Your task to perform on an android device: toggle notifications settings in the gmail app Image 0: 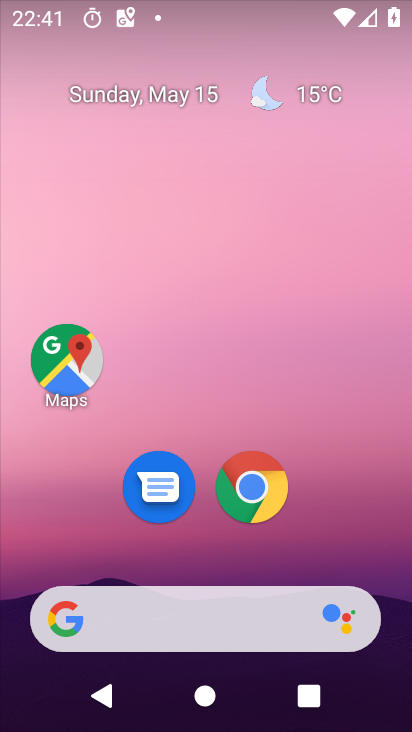
Step 0: drag from (284, 549) to (390, 243)
Your task to perform on an android device: toggle notifications settings in the gmail app Image 1: 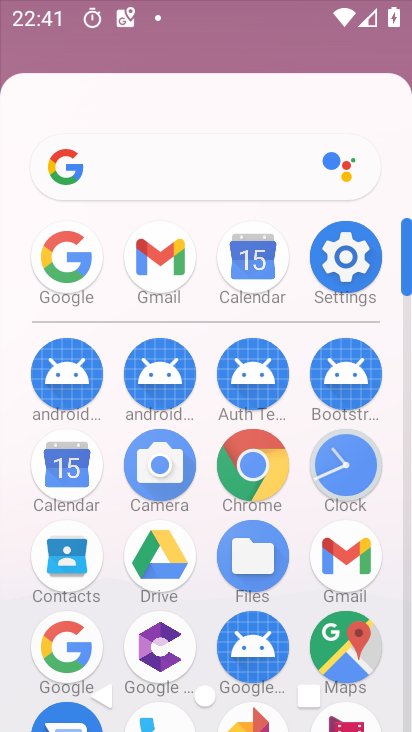
Step 1: drag from (115, 666) to (275, 337)
Your task to perform on an android device: toggle notifications settings in the gmail app Image 2: 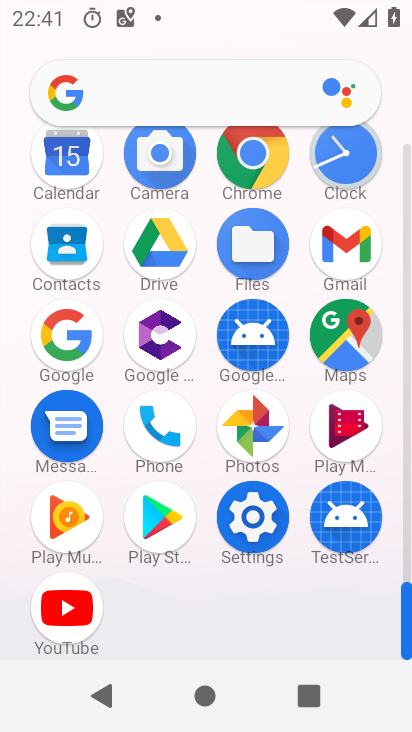
Step 2: click (342, 238)
Your task to perform on an android device: toggle notifications settings in the gmail app Image 3: 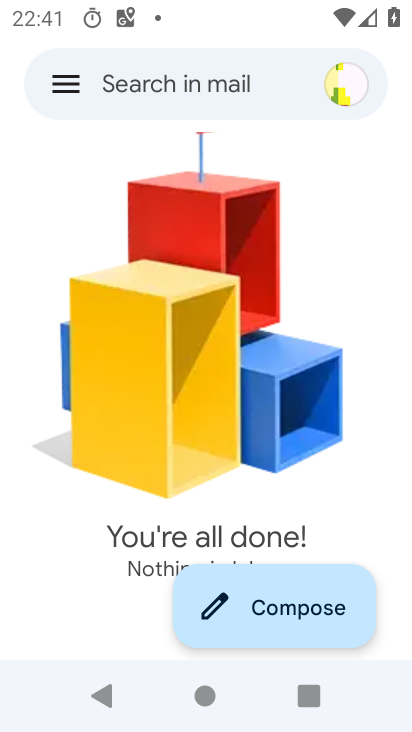
Step 3: click (72, 76)
Your task to perform on an android device: toggle notifications settings in the gmail app Image 4: 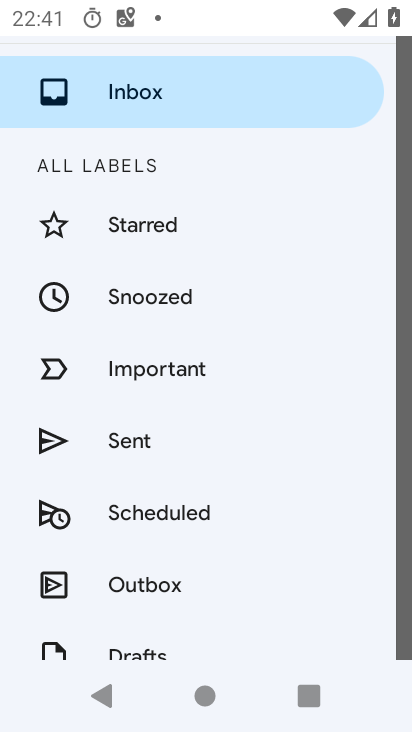
Step 4: drag from (179, 564) to (351, 166)
Your task to perform on an android device: toggle notifications settings in the gmail app Image 5: 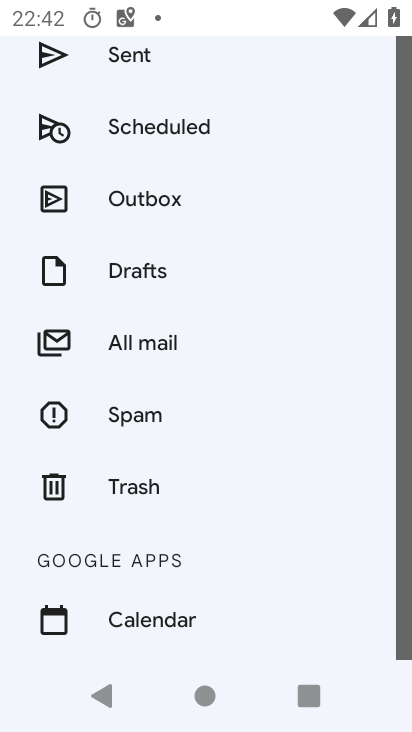
Step 5: drag from (224, 559) to (406, 159)
Your task to perform on an android device: toggle notifications settings in the gmail app Image 6: 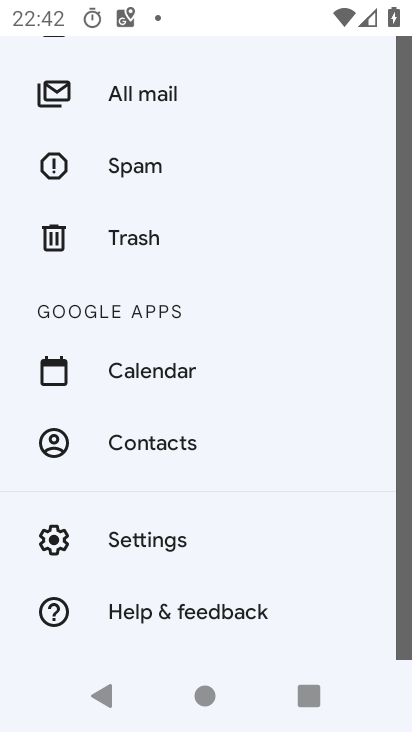
Step 6: click (162, 527)
Your task to perform on an android device: toggle notifications settings in the gmail app Image 7: 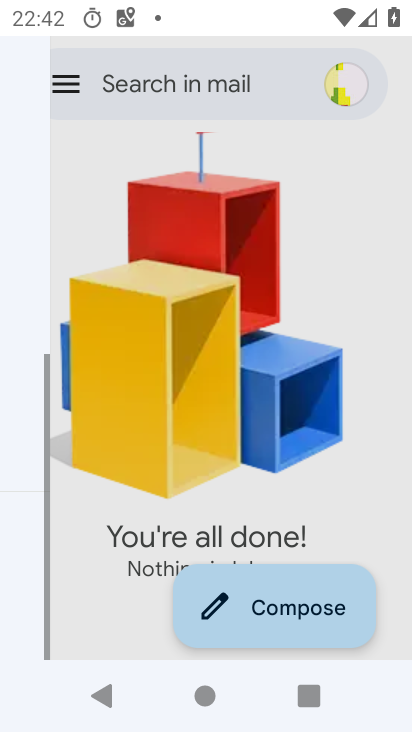
Step 7: click (151, 540)
Your task to perform on an android device: toggle notifications settings in the gmail app Image 8: 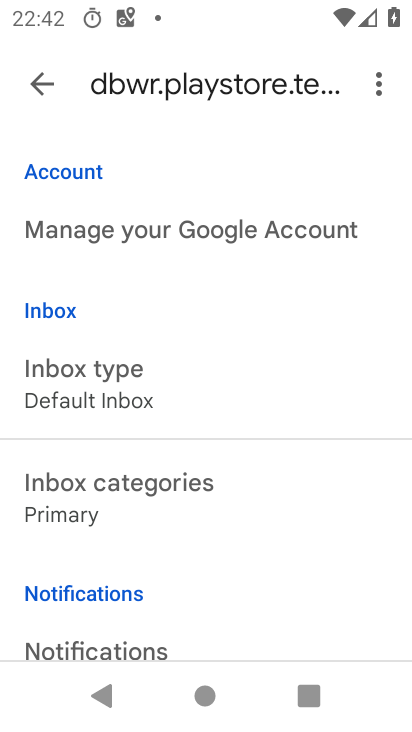
Step 8: click (113, 597)
Your task to perform on an android device: toggle notifications settings in the gmail app Image 9: 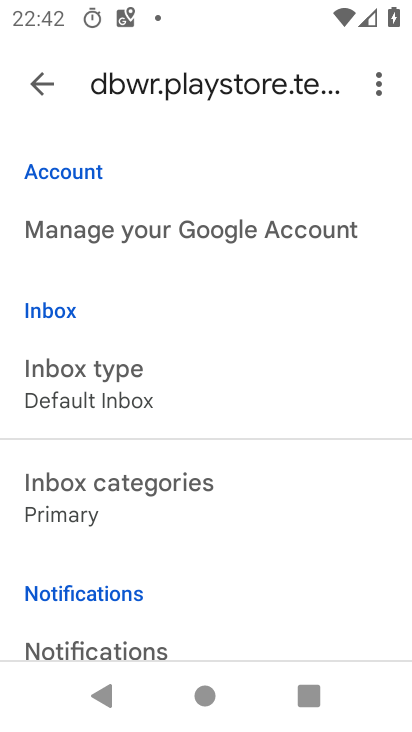
Step 9: click (101, 651)
Your task to perform on an android device: toggle notifications settings in the gmail app Image 10: 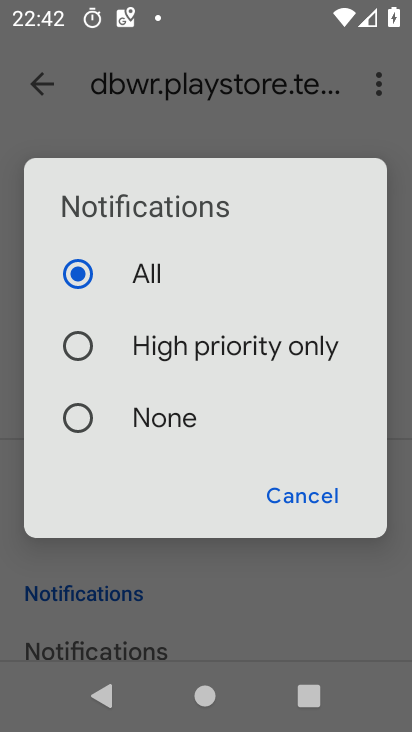
Step 10: click (80, 343)
Your task to perform on an android device: toggle notifications settings in the gmail app Image 11: 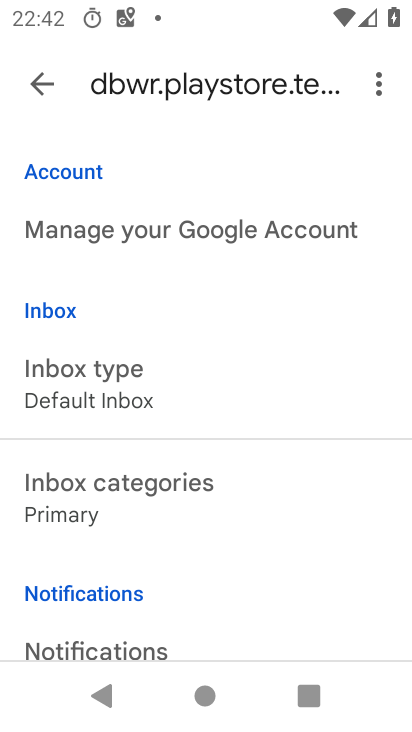
Step 11: task complete